Your task to perform on an android device: install app "LinkedIn" Image 0: 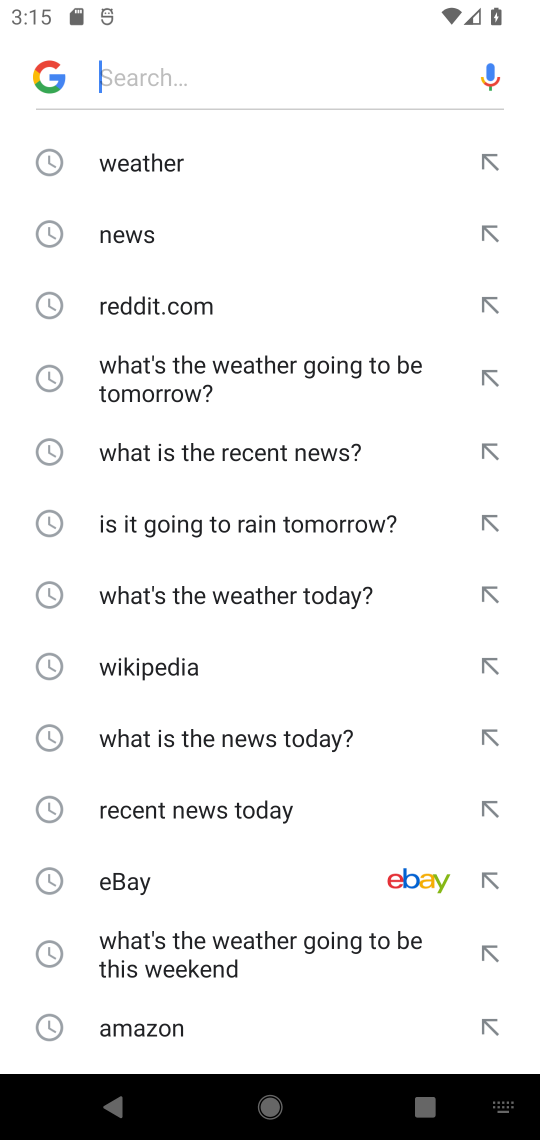
Step 0: press home button
Your task to perform on an android device: install app "LinkedIn" Image 1: 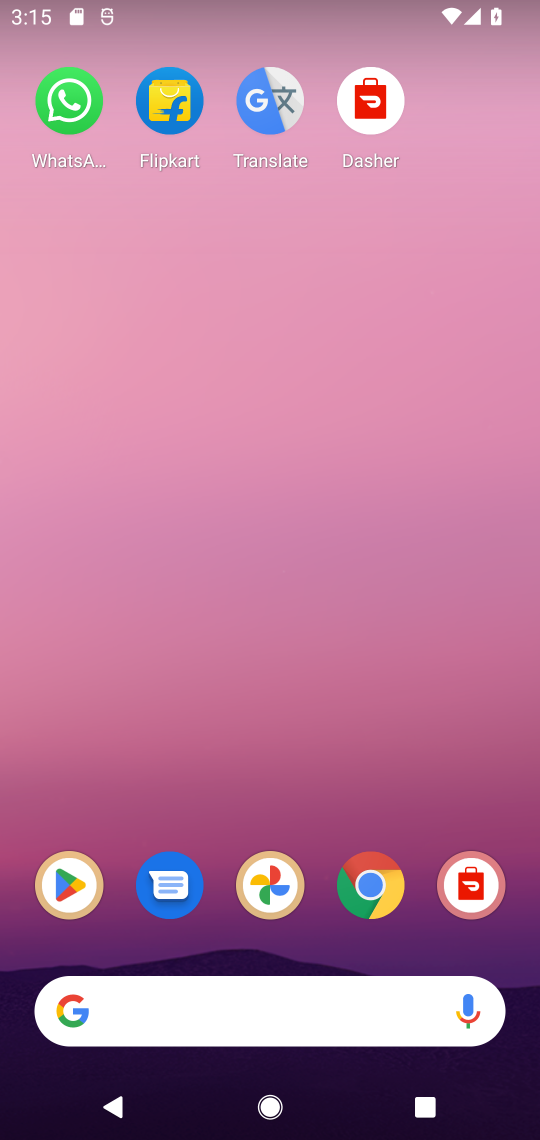
Step 1: click (65, 878)
Your task to perform on an android device: install app "LinkedIn" Image 2: 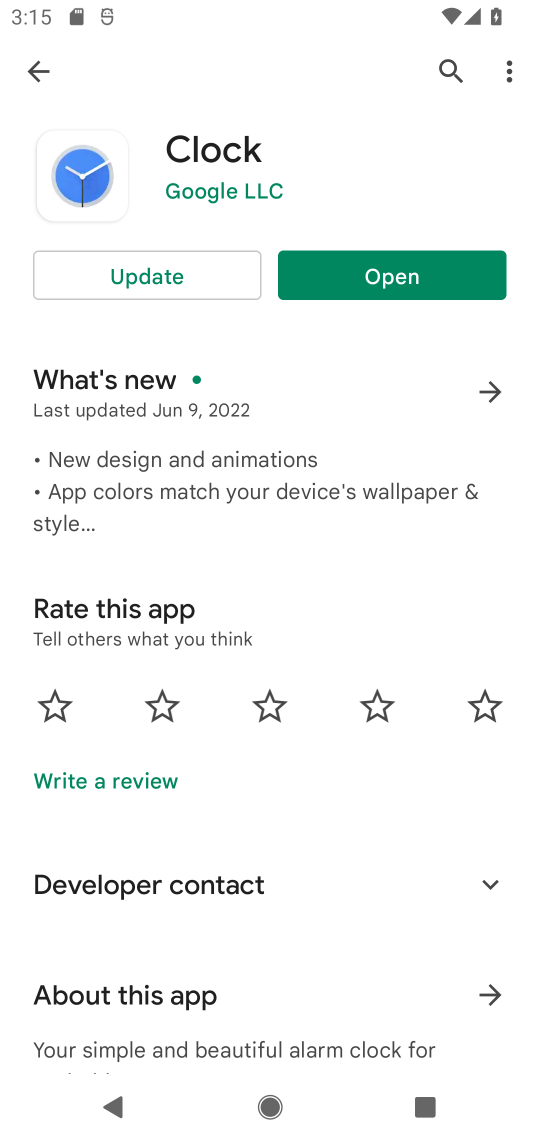
Step 2: click (452, 69)
Your task to perform on an android device: install app "LinkedIn" Image 3: 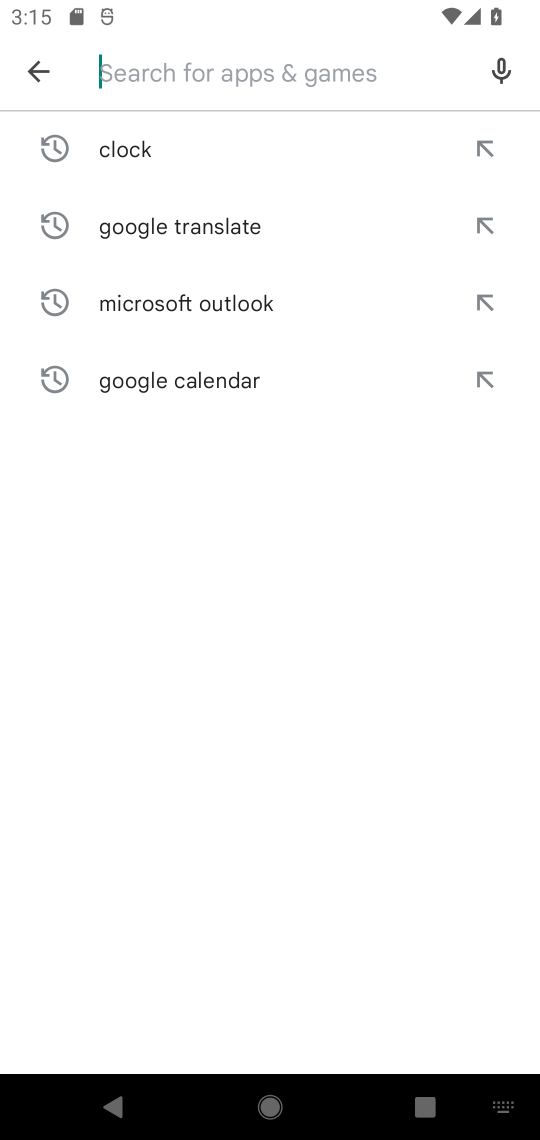
Step 3: click (344, 70)
Your task to perform on an android device: install app "LinkedIn" Image 4: 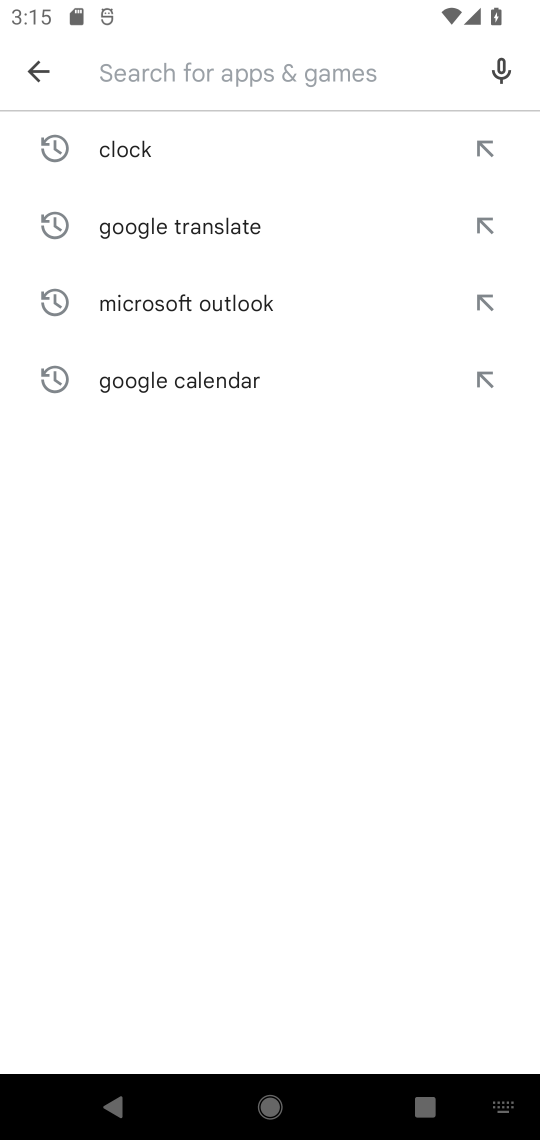
Step 4: type "LinkedIn"
Your task to perform on an android device: install app "LinkedIn" Image 5: 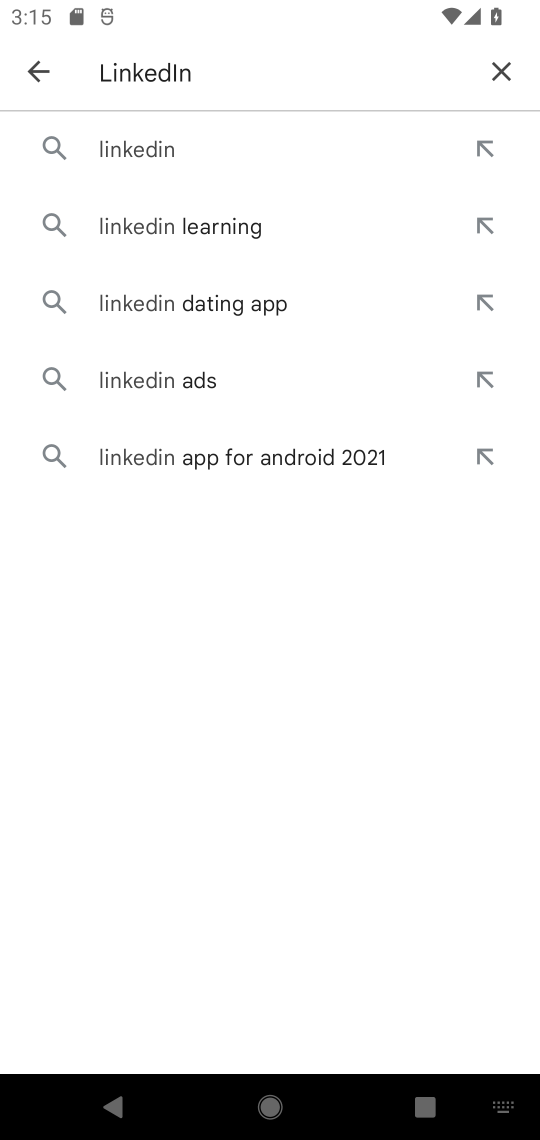
Step 5: click (169, 149)
Your task to perform on an android device: install app "LinkedIn" Image 6: 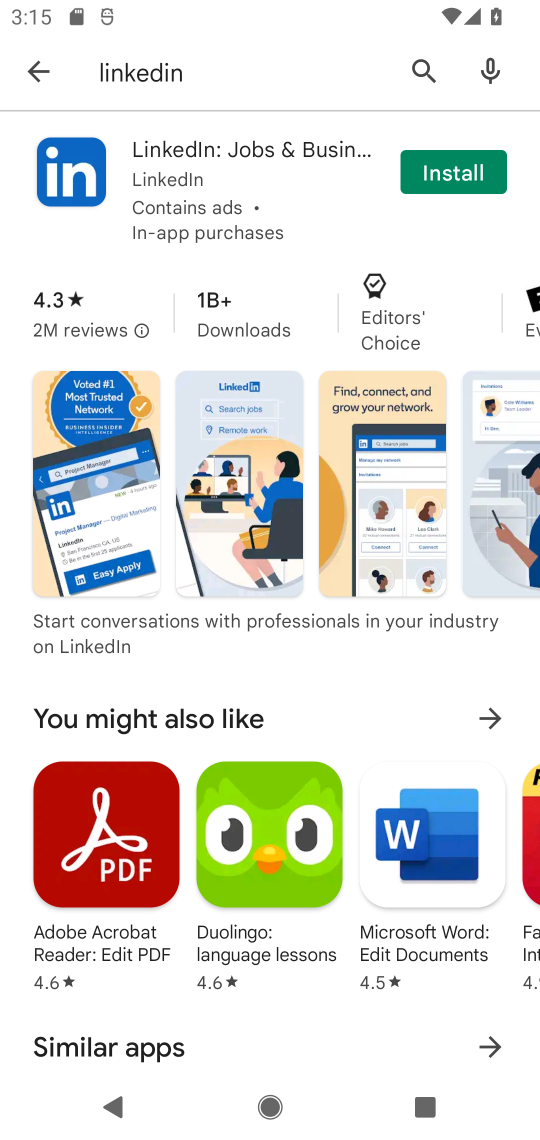
Step 6: click (461, 169)
Your task to perform on an android device: install app "LinkedIn" Image 7: 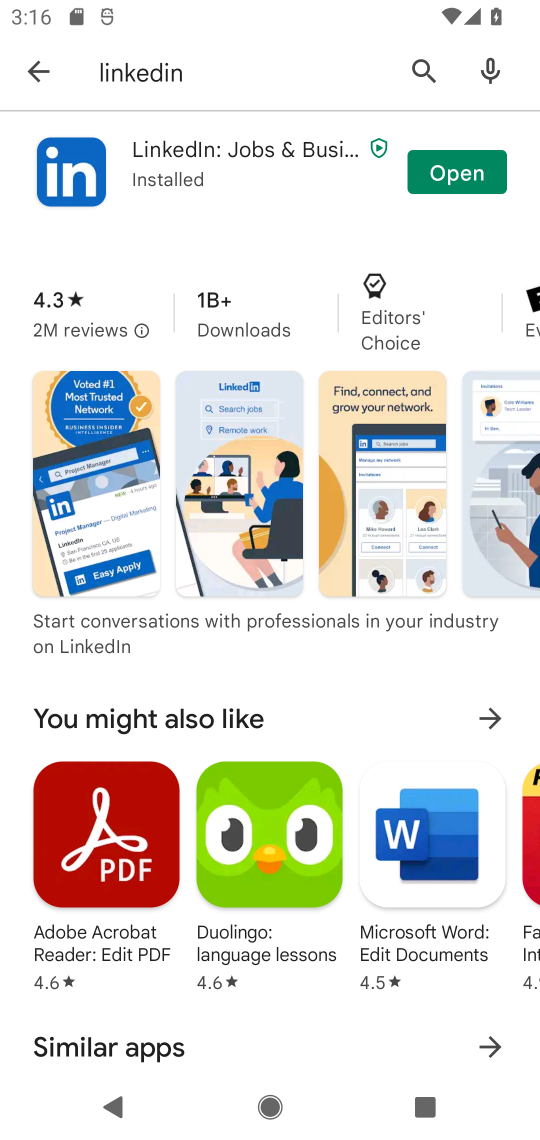
Step 7: task complete